Your task to perform on an android device: Open settings Image 0: 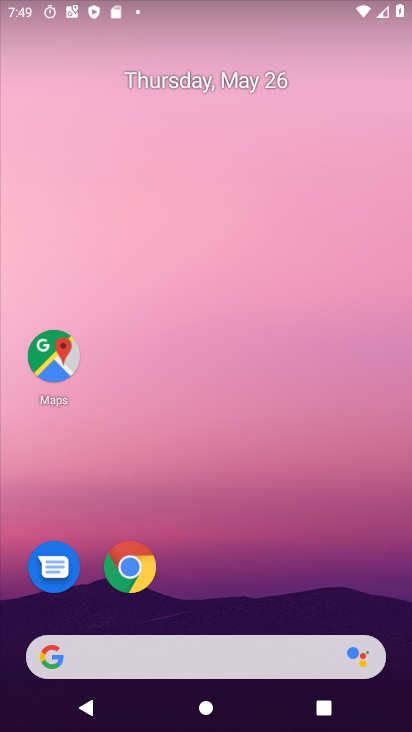
Step 0: drag from (161, 568) to (267, 123)
Your task to perform on an android device: Open settings Image 1: 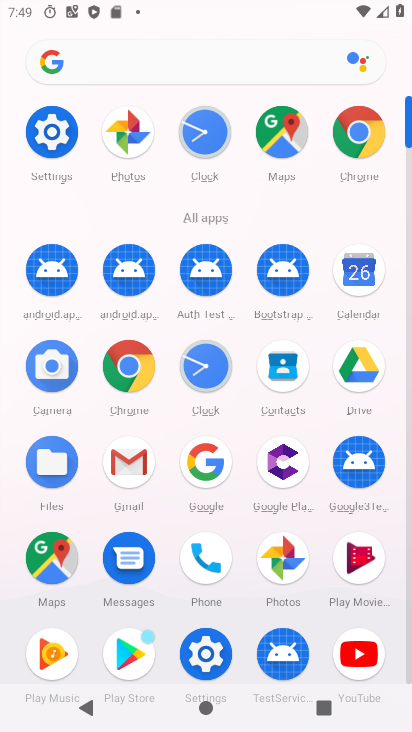
Step 1: click (55, 130)
Your task to perform on an android device: Open settings Image 2: 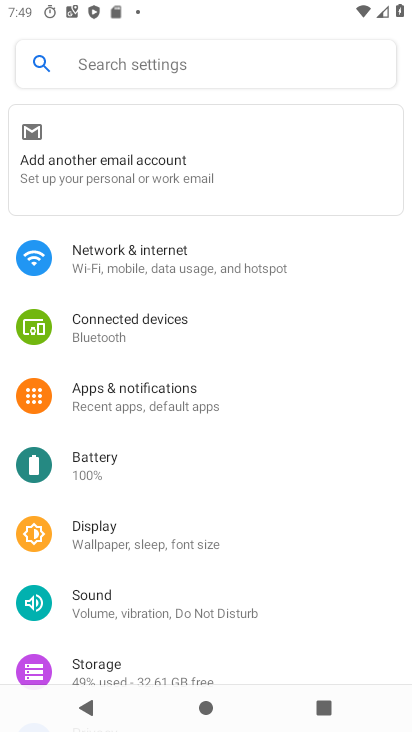
Step 2: task complete